Your task to perform on an android device: change keyboard looks Image 0: 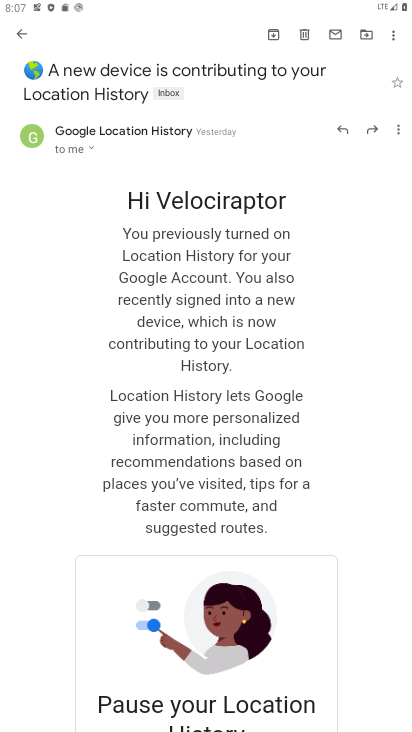
Step 0: press home button
Your task to perform on an android device: change keyboard looks Image 1: 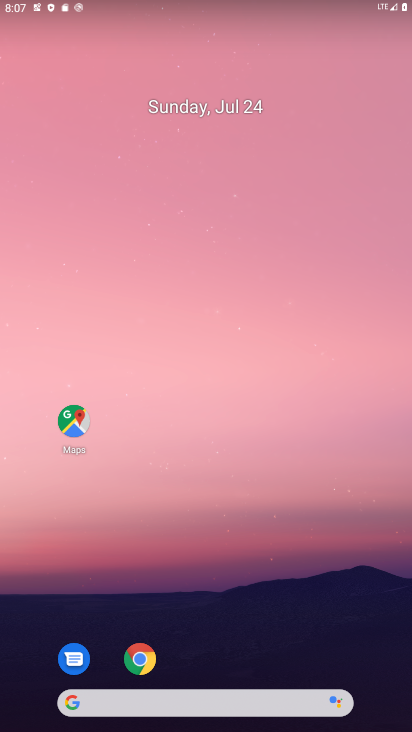
Step 1: drag from (218, 720) to (238, 98)
Your task to perform on an android device: change keyboard looks Image 2: 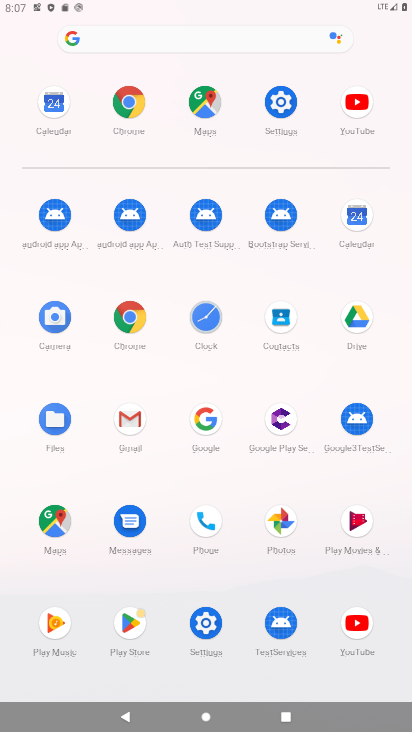
Step 2: click (276, 103)
Your task to perform on an android device: change keyboard looks Image 3: 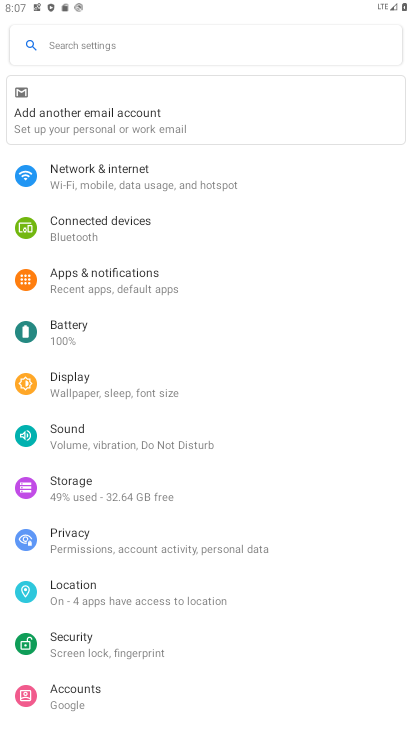
Step 3: drag from (125, 610) to (128, 227)
Your task to perform on an android device: change keyboard looks Image 4: 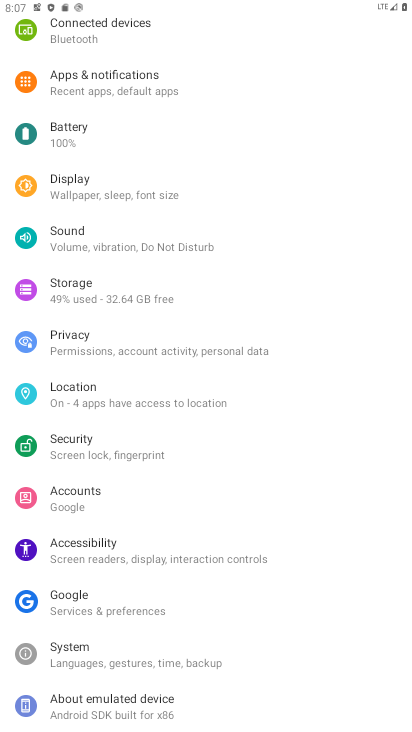
Step 4: click (69, 655)
Your task to perform on an android device: change keyboard looks Image 5: 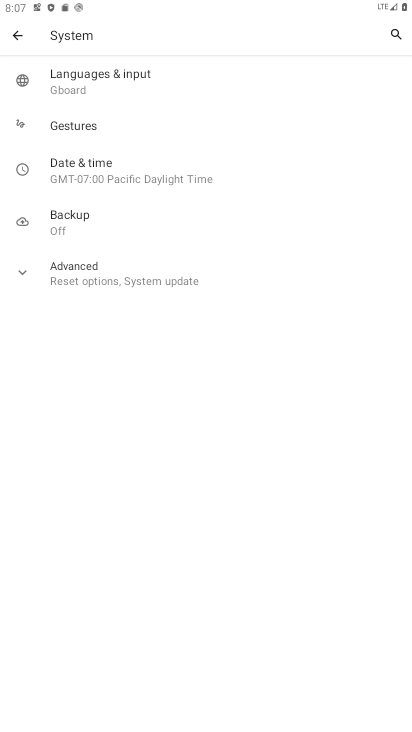
Step 5: click (74, 79)
Your task to perform on an android device: change keyboard looks Image 6: 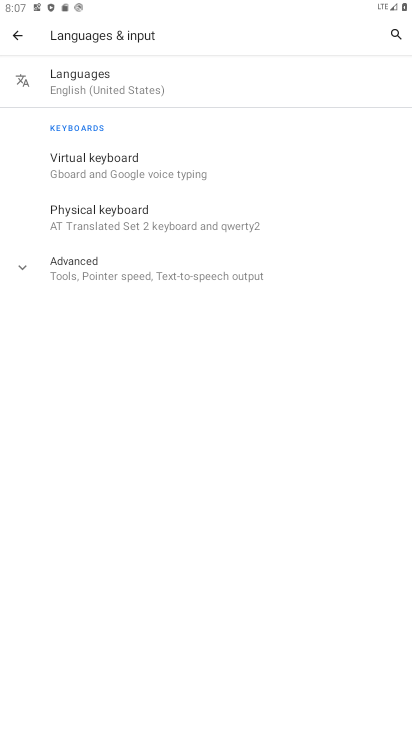
Step 6: click (133, 164)
Your task to perform on an android device: change keyboard looks Image 7: 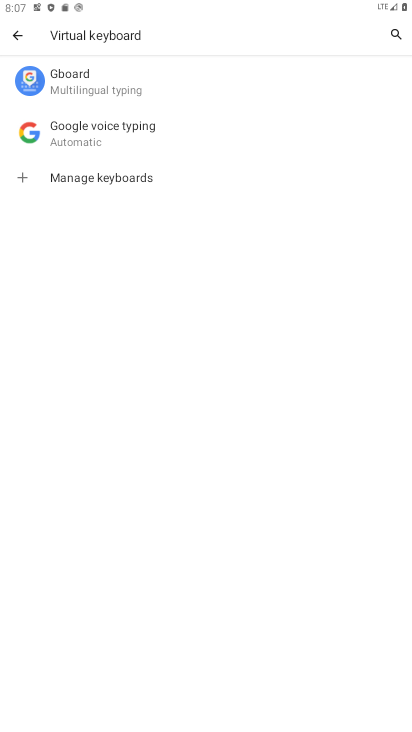
Step 7: click (85, 85)
Your task to perform on an android device: change keyboard looks Image 8: 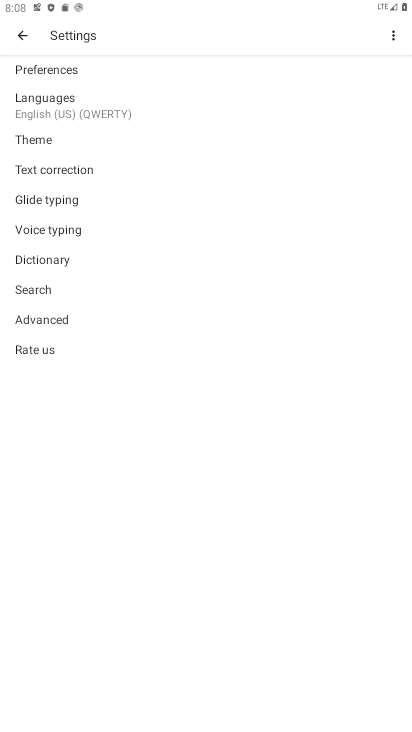
Step 8: click (37, 139)
Your task to perform on an android device: change keyboard looks Image 9: 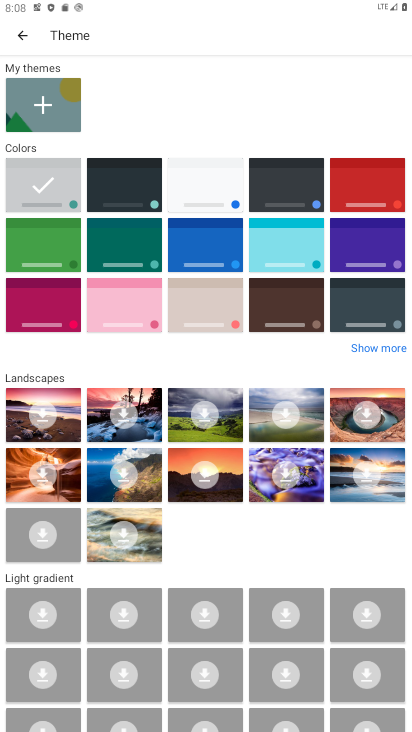
Step 9: click (138, 172)
Your task to perform on an android device: change keyboard looks Image 10: 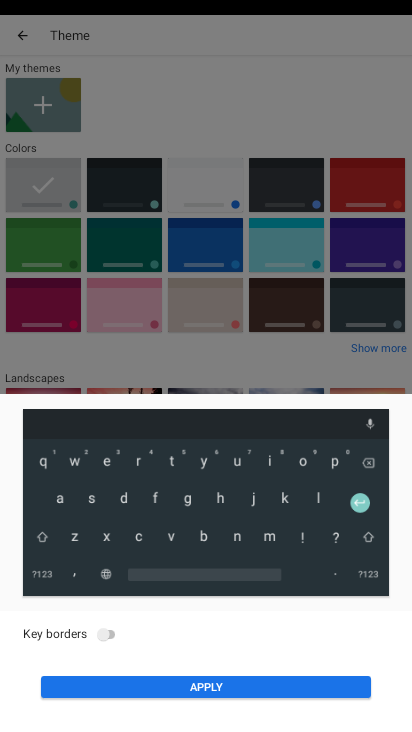
Step 10: click (111, 637)
Your task to perform on an android device: change keyboard looks Image 11: 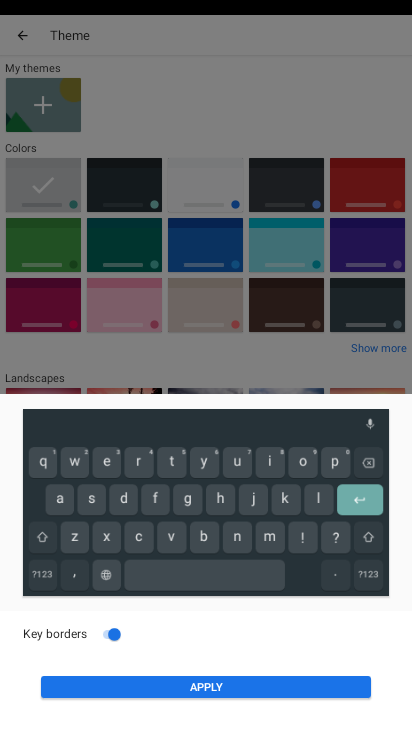
Step 11: click (187, 689)
Your task to perform on an android device: change keyboard looks Image 12: 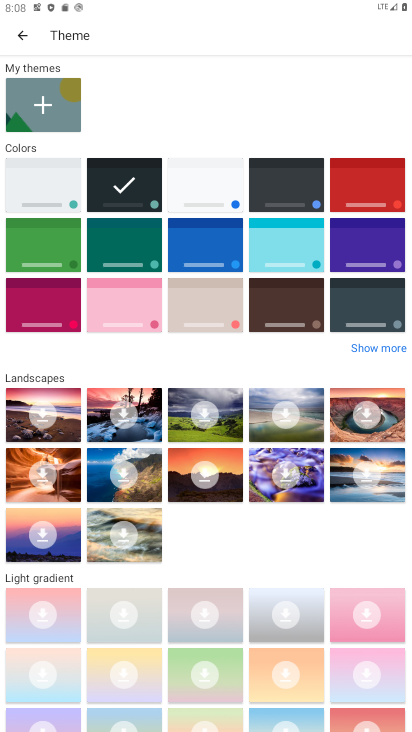
Step 12: task complete